Your task to perform on an android device: Go to Amazon Image 0: 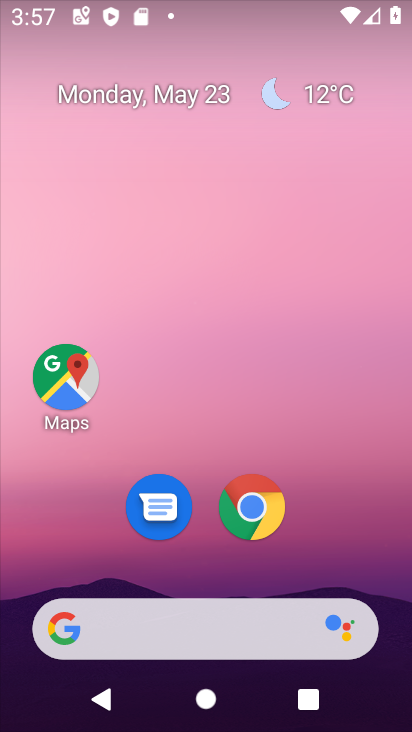
Step 0: click (262, 485)
Your task to perform on an android device: Go to Amazon Image 1: 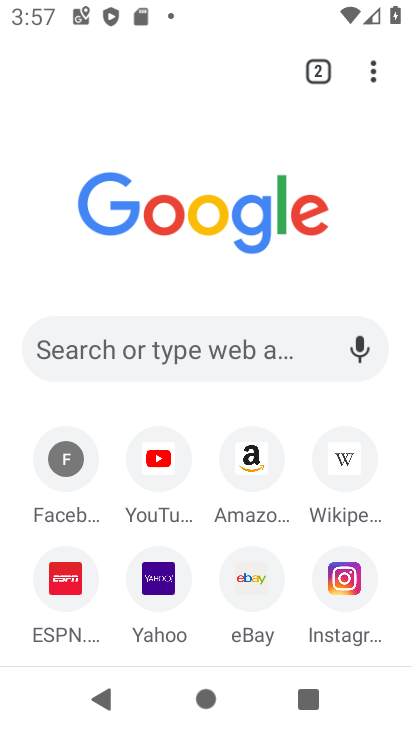
Step 1: click (253, 463)
Your task to perform on an android device: Go to Amazon Image 2: 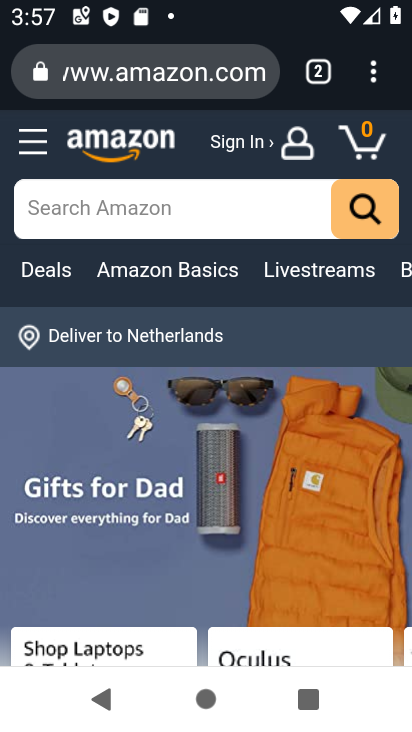
Step 2: task complete